Your task to perform on an android device: toggle translation in the chrome app Image 0: 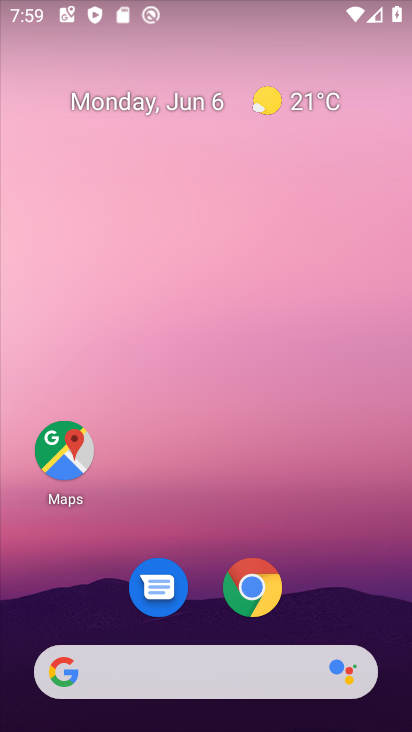
Step 0: click (374, 478)
Your task to perform on an android device: toggle translation in the chrome app Image 1: 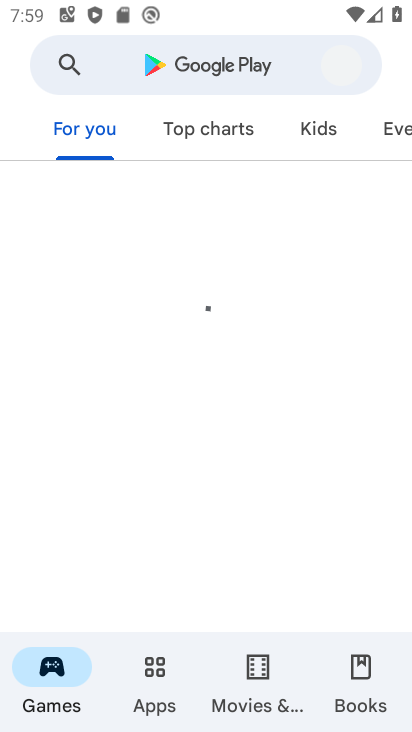
Step 1: press home button
Your task to perform on an android device: toggle translation in the chrome app Image 2: 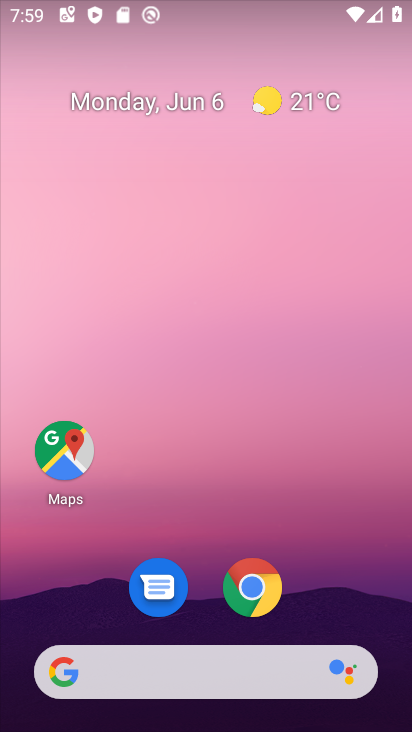
Step 2: click (254, 593)
Your task to perform on an android device: toggle translation in the chrome app Image 3: 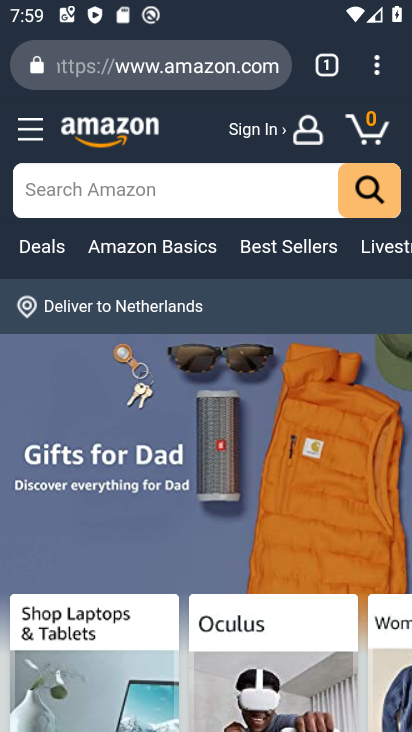
Step 3: click (373, 64)
Your task to perform on an android device: toggle translation in the chrome app Image 4: 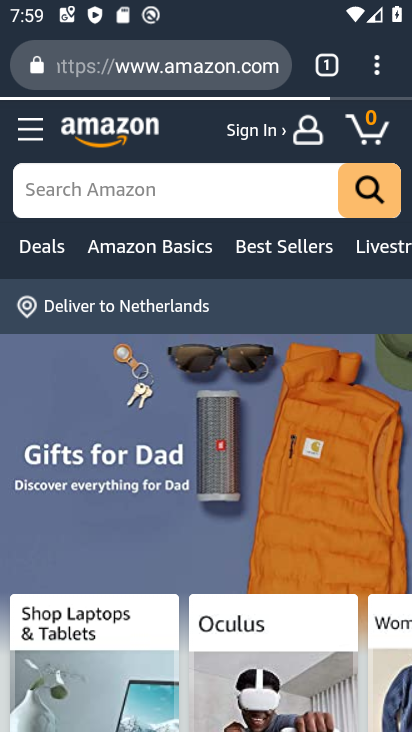
Step 4: click (373, 64)
Your task to perform on an android device: toggle translation in the chrome app Image 5: 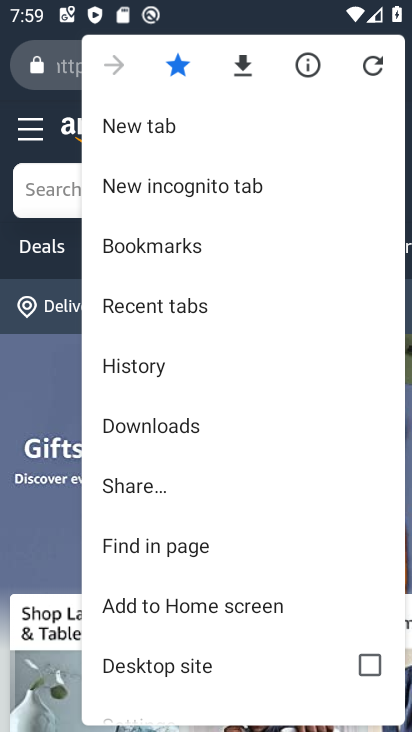
Step 5: drag from (256, 624) to (273, 71)
Your task to perform on an android device: toggle translation in the chrome app Image 6: 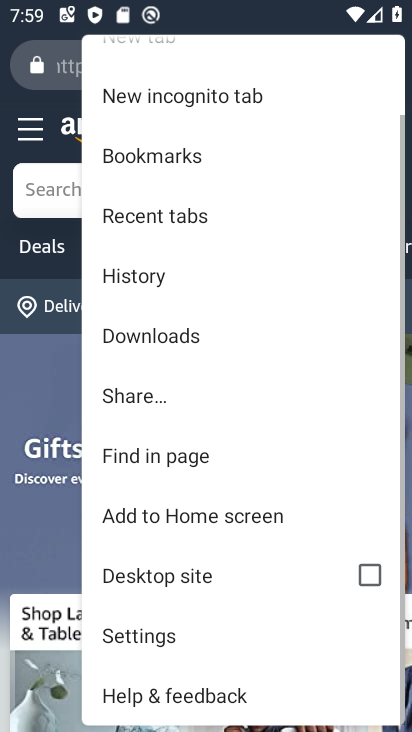
Step 6: click (156, 643)
Your task to perform on an android device: toggle translation in the chrome app Image 7: 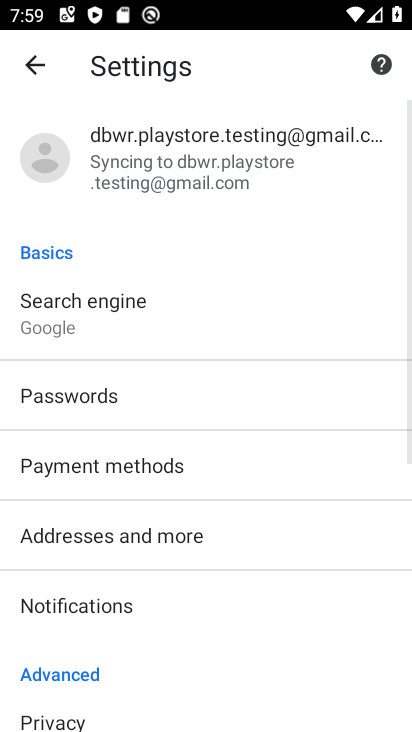
Step 7: drag from (143, 650) to (196, 146)
Your task to perform on an android device: toggle translation in the chrome app Image 8: 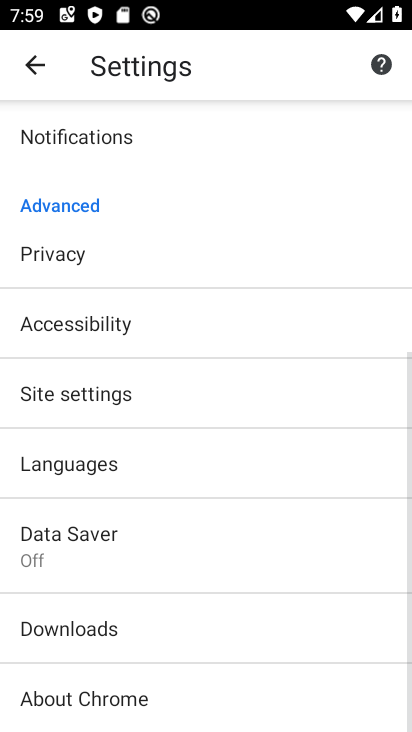
Step 8: click (123, 465)
Your task to perform on an android device: toggle translation in the chrome app Image 9: 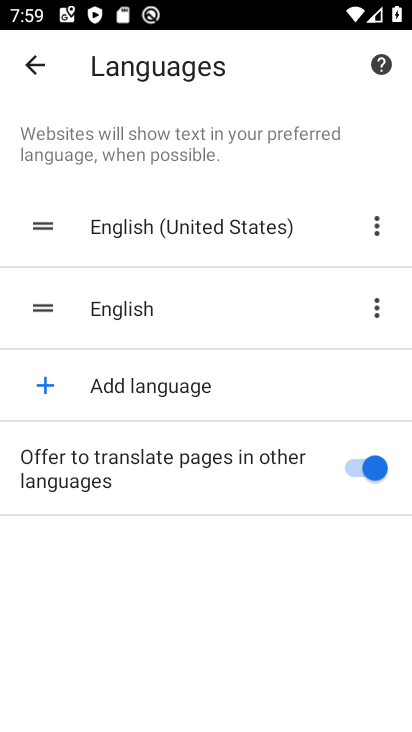
Step 9: click (370, 469)
Your task to perform on an android device: toggle translation in the chrome app Image 10: 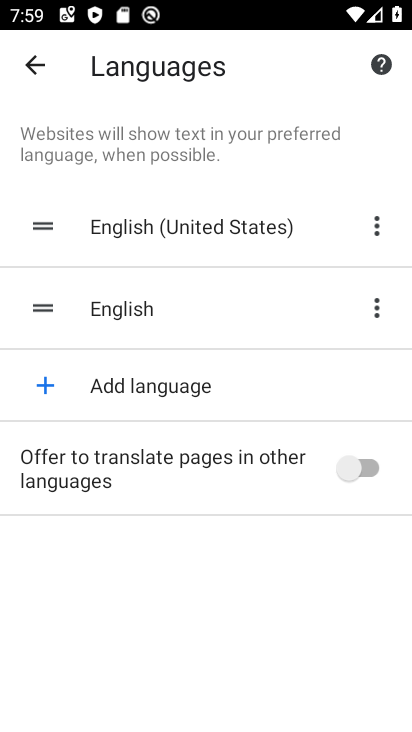
Step 10: task complete